Your task to perform on an android device: open chrome and create a bookmark for the current page Image 0: 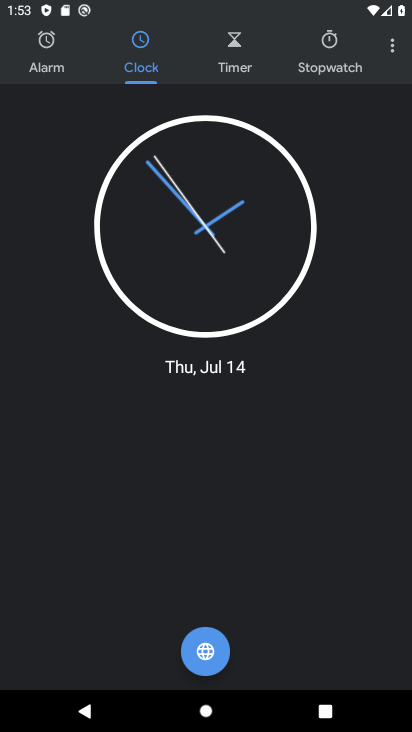
Step 0: press home button
Your task to perform on an android device: open chrome and create a bookmark for the current page Image 1: 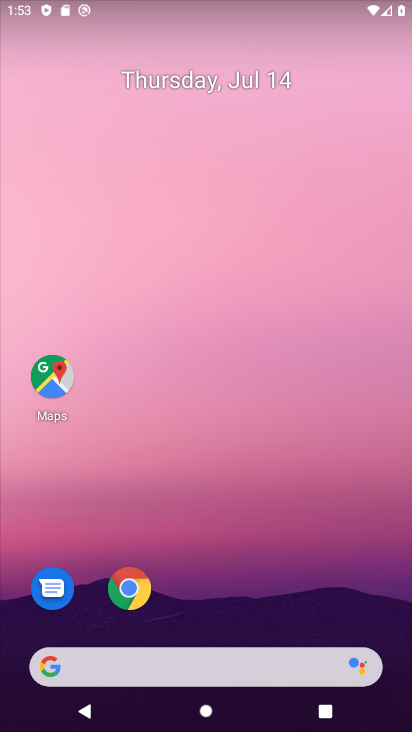
Step 1: click (125, 599)
Your task to perform on an android device: open chrome and create a bookmark for the current page Image 2: 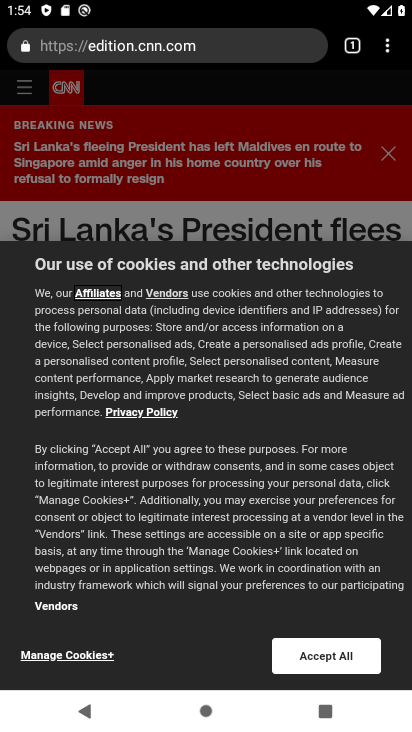
Step 2: click (385, 42)
Your task to perform on an android device: open chrome and create a bookmark for the current page Image 3: 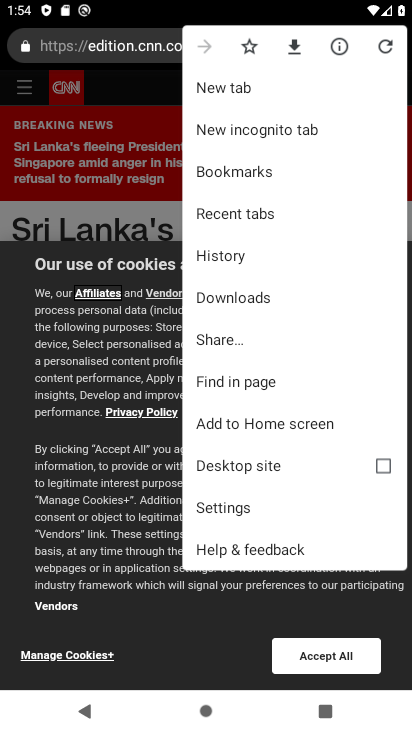
Step 3: click (242, 57)
Your task to perform on an android device: open chrome and create a bookmark for the current page Image 4: 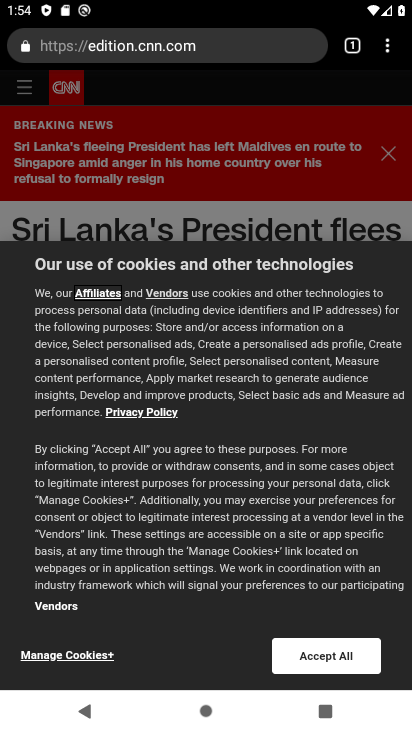
Step 4: click (384, 45)
Your task to perform on an android device: open chrome and create a bookmark for the current page Image 5: 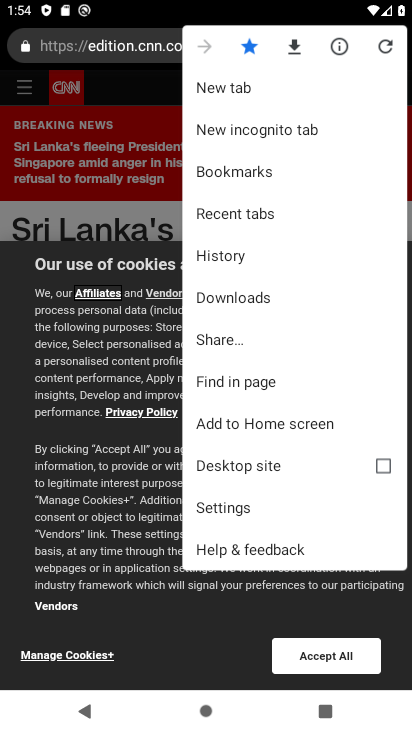
Step 5: task complete